Your task to perform on an android device: toggle translation in the chrome app Image 0: 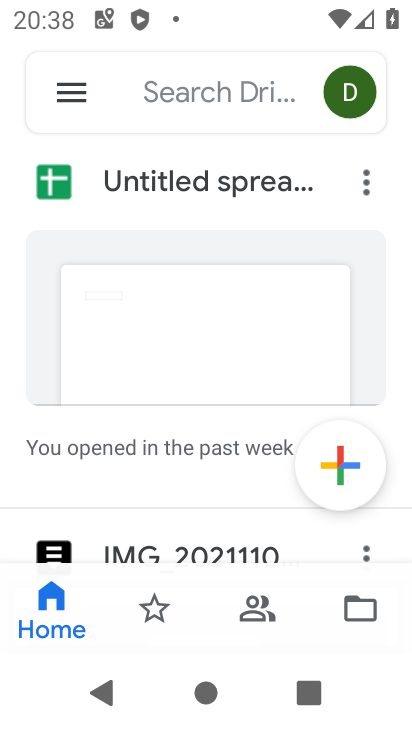
Step 0: drag from (178, 477) to (236, 74)
Your task to perform on an android device: toggle translation in the chrome app Image 1: 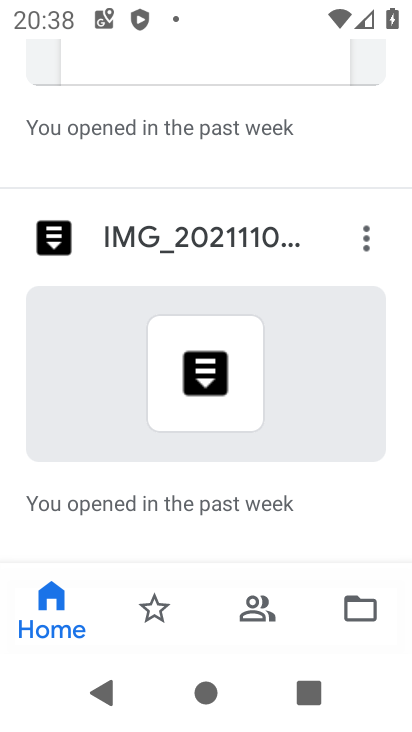
Step 1: press home button
Your task to perform on an android device: toggle translation in the chrome app Image 2: 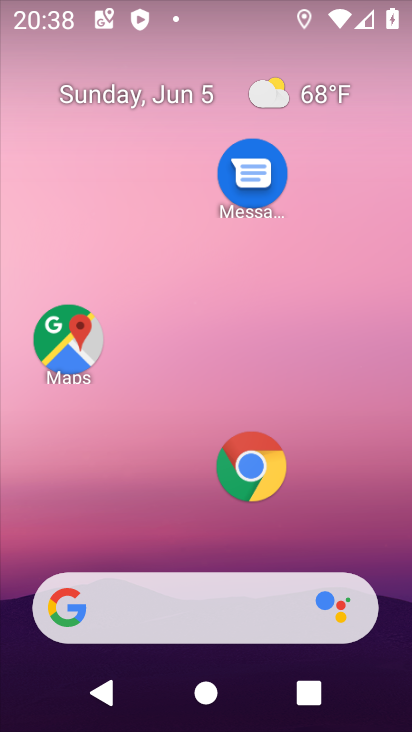
Step 2: drag from (210, 528) to (218, 75)
Your task to perform on an android device: toggle translation in the chrome app Image 3: 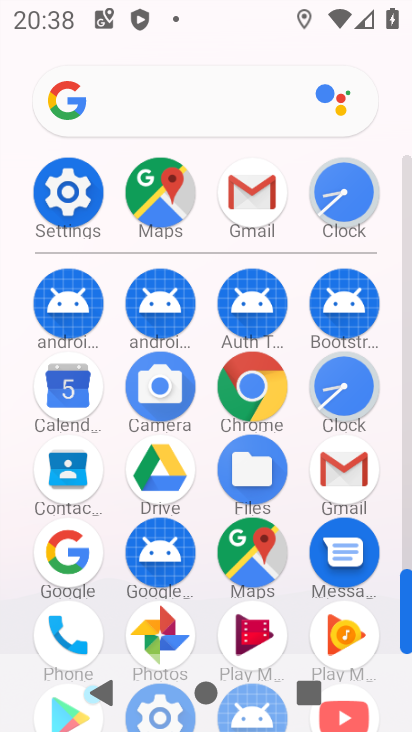
Step 3: click (243, 380)
Your task to perform on an android device: toggle translation in the chrome app Image 4: 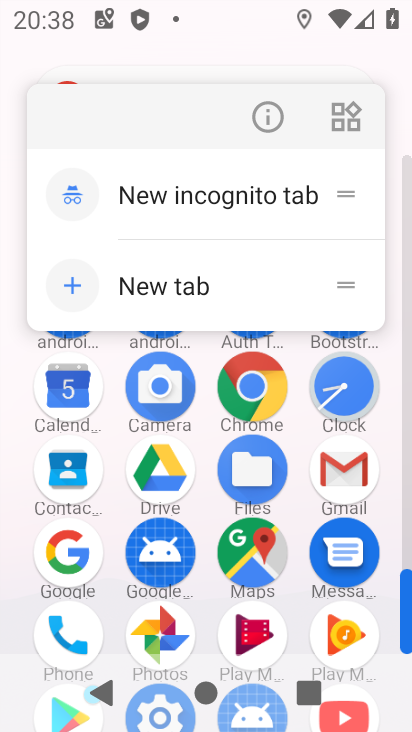
Step 4: click (261, 116)
Your task to perform on an android device: toggle translation in the chrome app Image 5: 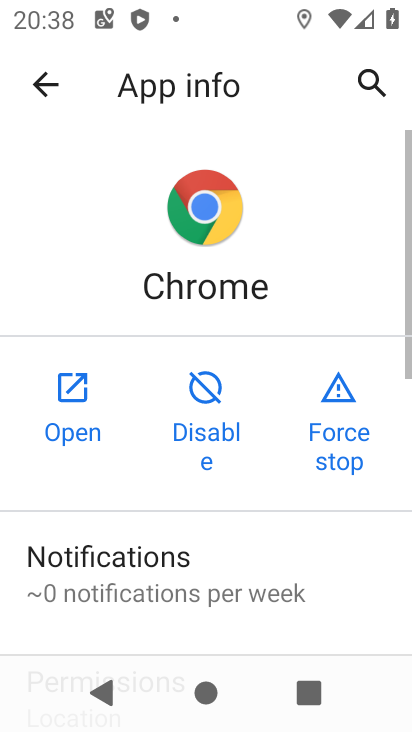
Step 5: drag from (208, 543) to (222, 254)
Your task to perform on an android device: toggle translation in the chrome app Image 6: 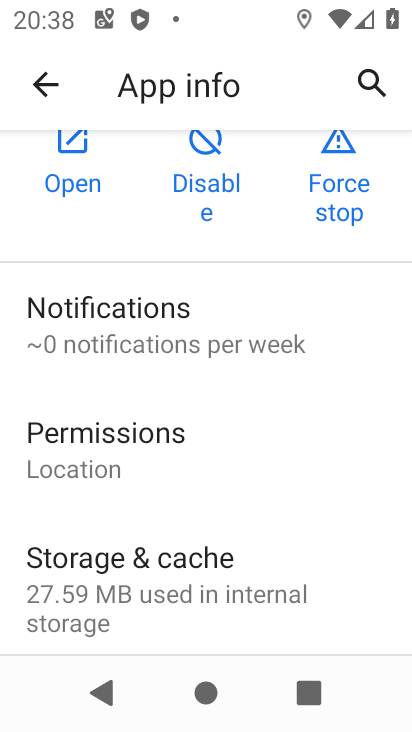
Step 6: drag from (226, 223) to (230, 666)
Your task to perform on an android device: toggle translation in the chrome app Image 7: 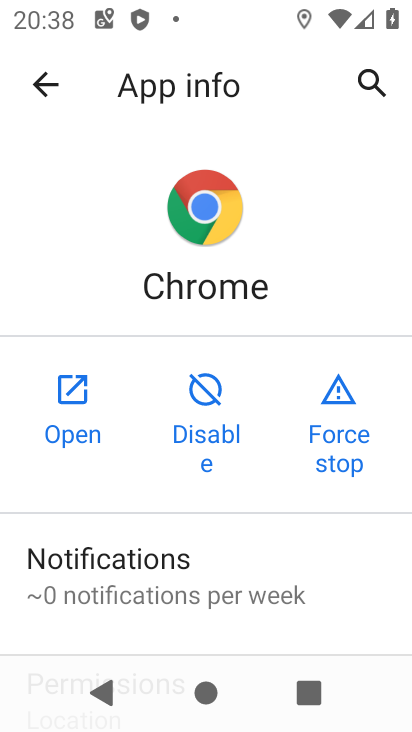
Step 7: click (85, 387)
Your task to perform on an android device: toggle translation in the chrome app Image 8: 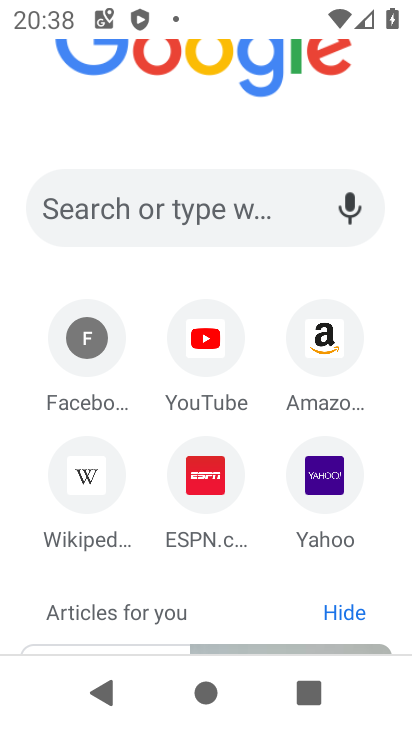
Step 8: drag from (355, 185) to (326, 526)
Your task to perform on an android device: toggle translation in the chrome app Image 9: 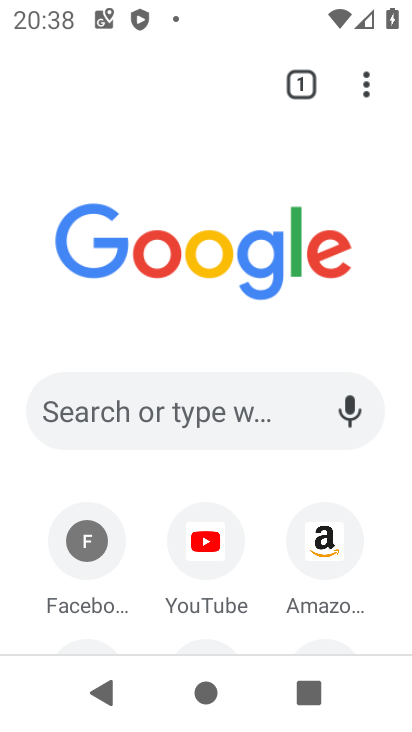
Step 9: click (361, 92)
Your task to perform on an android device: toggle translation in the chrome app Image 10: 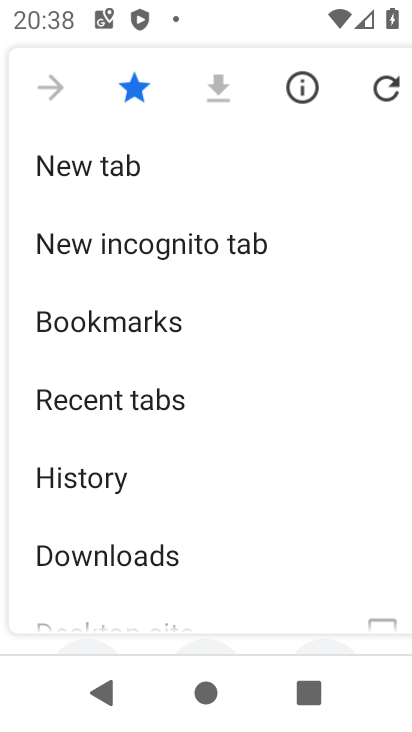
Step 10: drag from (105, 554) to (161, 77)
Your task to perform on an android device: toggle translation in the chrome app Image 11: 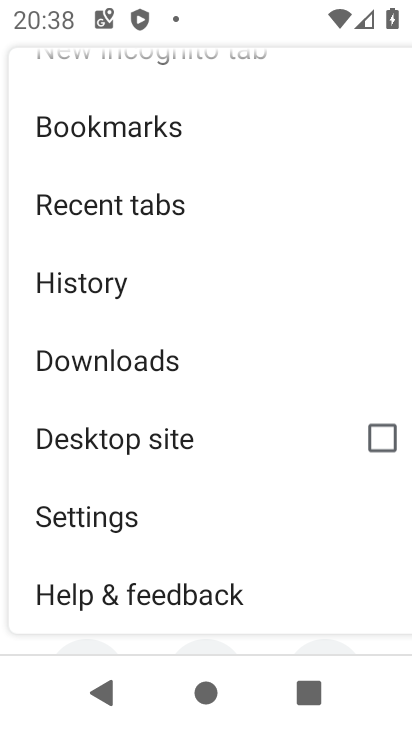
Step 11: click (144, 496)
Your task to perform on an android device: toggle translation in the chrome app Image 12: 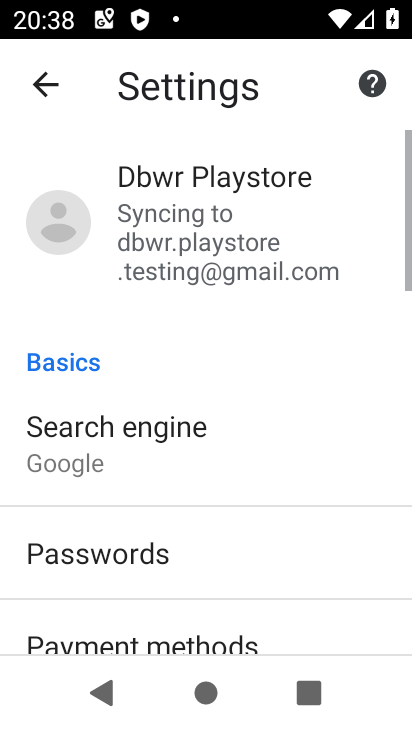
Step 12: drag from (222, 463) to (235, 242)
Your task to perform on an android device: toggle translation in the chrome app Image 13: 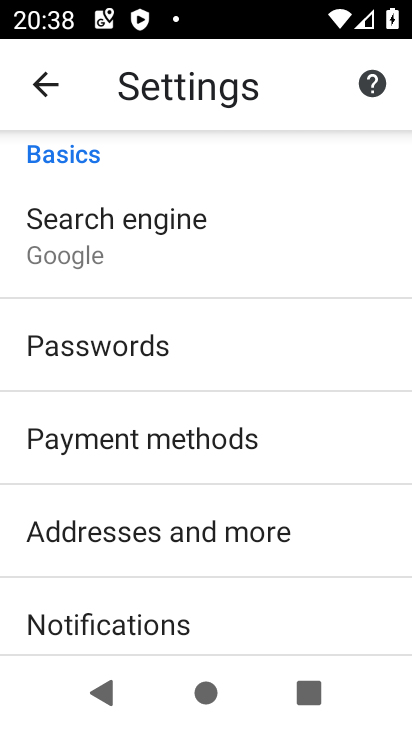
Step 13: drag from (238, 525) to (269, 299)
Your task to perform on an android device: toggle translation in the chrome app Image 14: 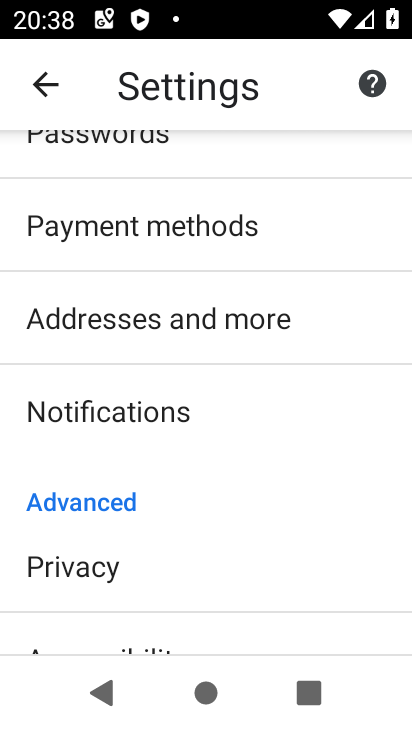
Step 14: drag from (170, 594) to (276, 218)
Your task to perform on an android device: toggle translation in the chrome app Image 15: 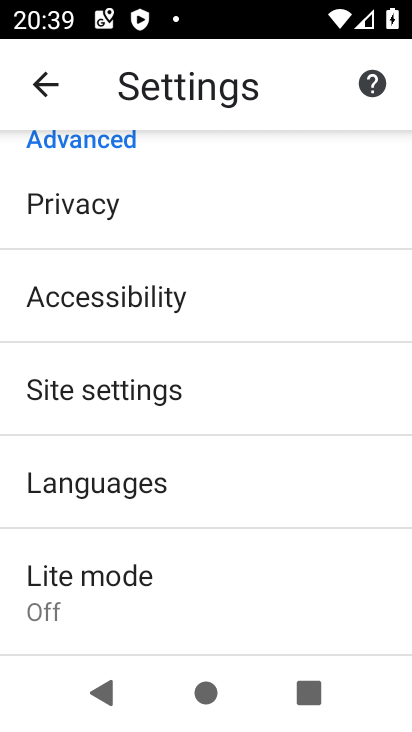
Step 15: drag from (188, 415) to (277, 55)
Your task to perform on an android device: toggle translation in the chrome app Image 16: 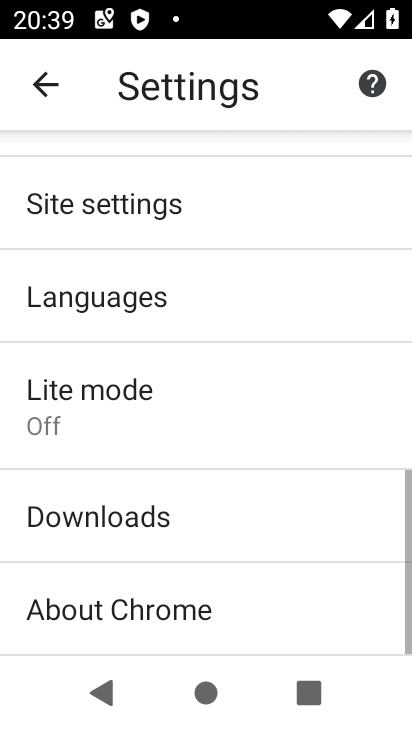
Step 16: drag from (195, 212) to (203, 410)
Your task to perform on an android device: toggle translation in the chrome app Image 17: 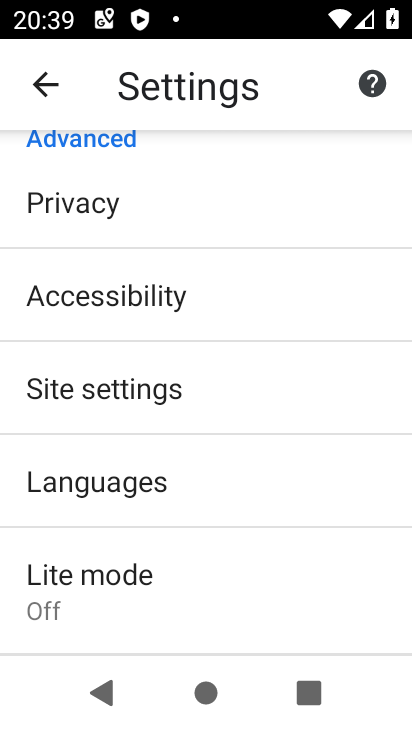
Step 17: click (147, 409)
Your task to perform on an android device: toggle translation in the chrome app Image 18: 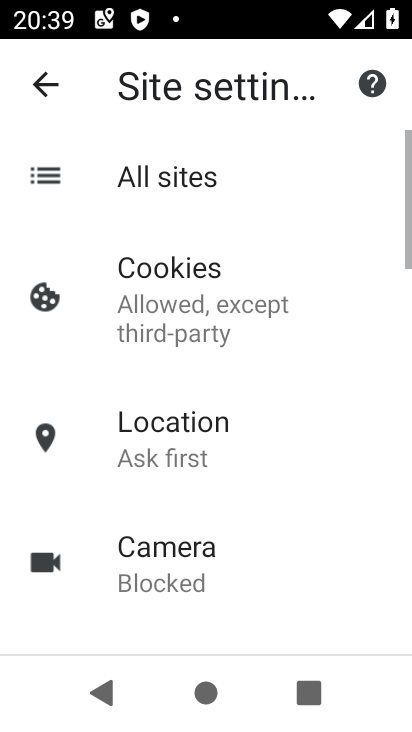
Step 18: drag from (216, 459) to (252, 255)
Your task to perform on an android device: toggle translation in the chrome app Image 19: 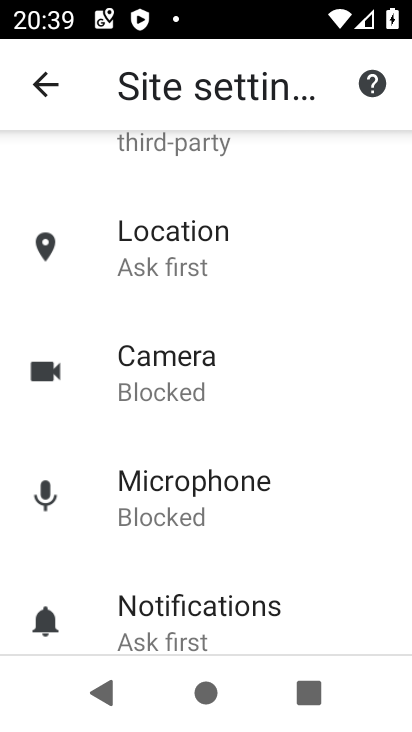
Step 19: drag from (217, 498) to (277, 244)
Your task to perform on an android device: toggle translation in the chrome app Image 20: 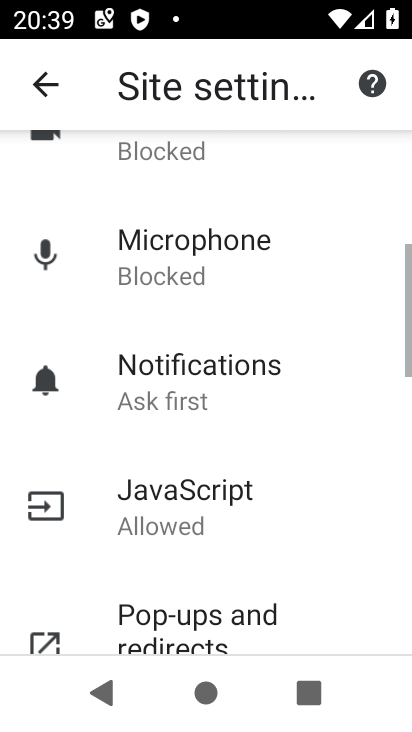
Step 20: drag from (225, 534) to (298, 252)
Your task to perform on an android device: toggle translation in the chrome app Image 21: 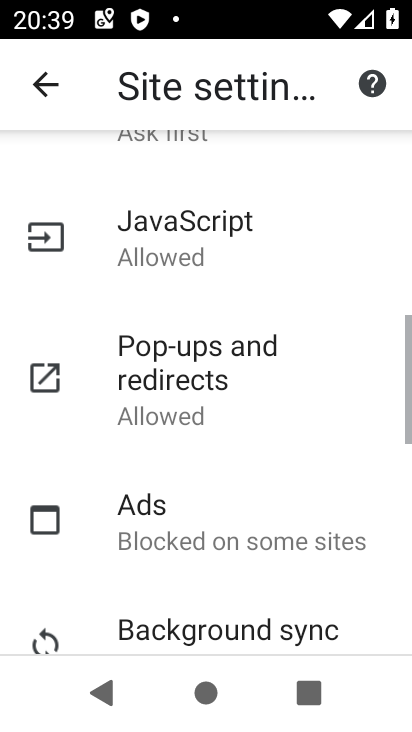
Step 21: drag from (219, 534) to (364, 98)
Your task to perform on an android device: toggle translation in the chrome app Image 22: 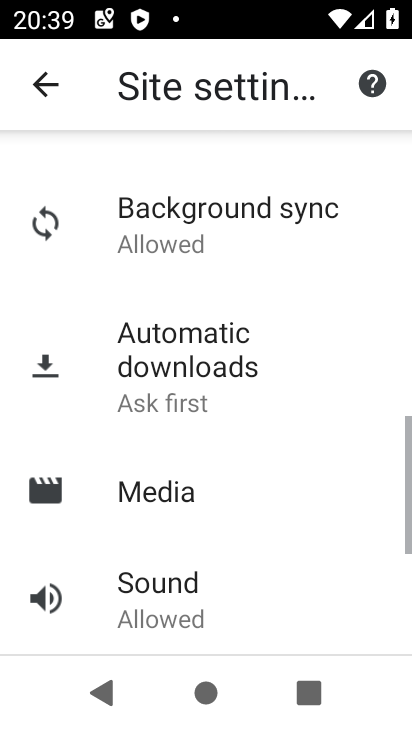
Step 22: drag from (230, 373) to (316, 681)
Your task to perform on an android device: toggle translation in the chrome app Image 23: 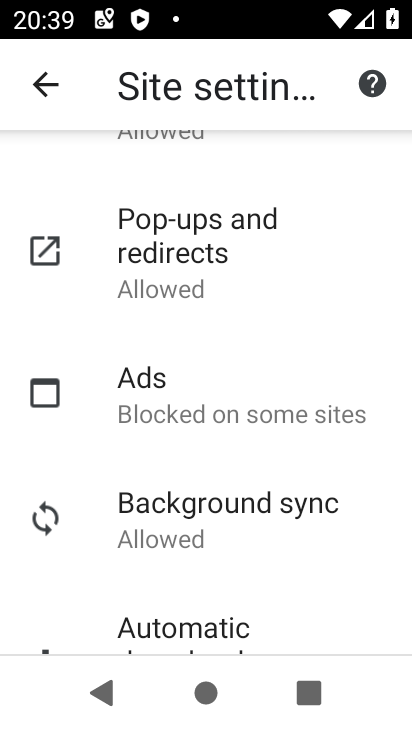
Step 23: drag from (273, 489) to (336, 234)
Your task to perform on an android device: toggle translation in the chrome app Image 24: 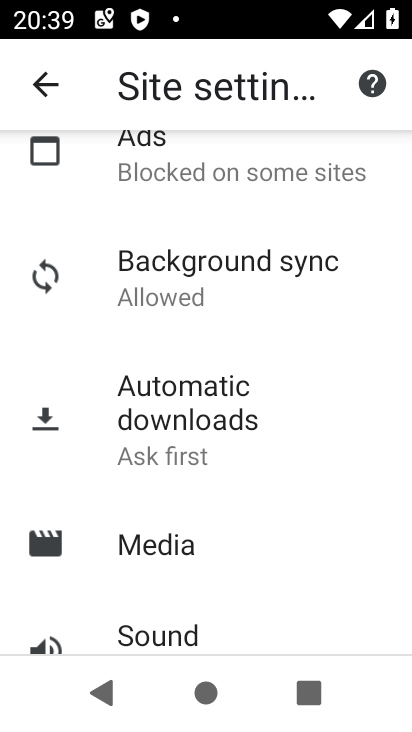
Step 24: drag from (193, 541) to (273, 237)
Your task to perform on an android device: toggle translation in the chrome app Image 25: 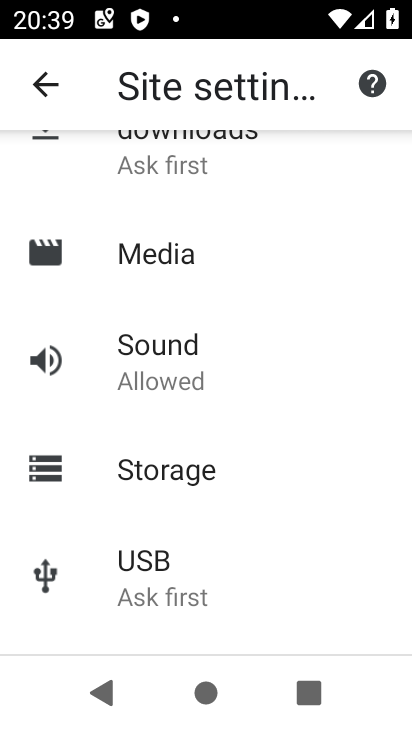
Step 25: drag from (273, 302) to (316, 706)
Your task to perform on an android device: toggle translation in the chrome app Image 26: 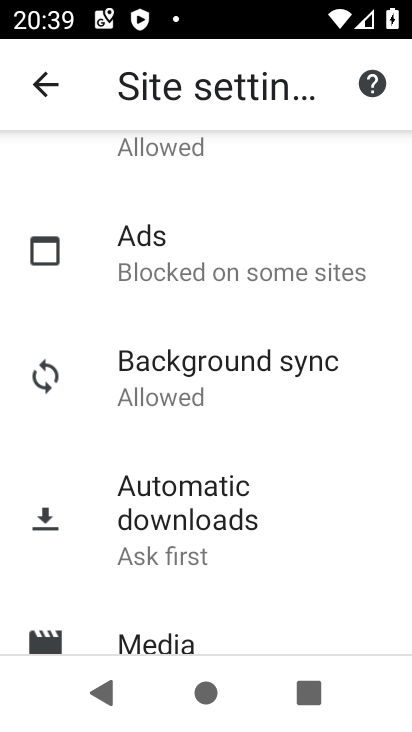
Step 26: drag from (239, 245) to (290, 691)
Your task to perform on an android device: toggle translation in the chrome app Image 27: 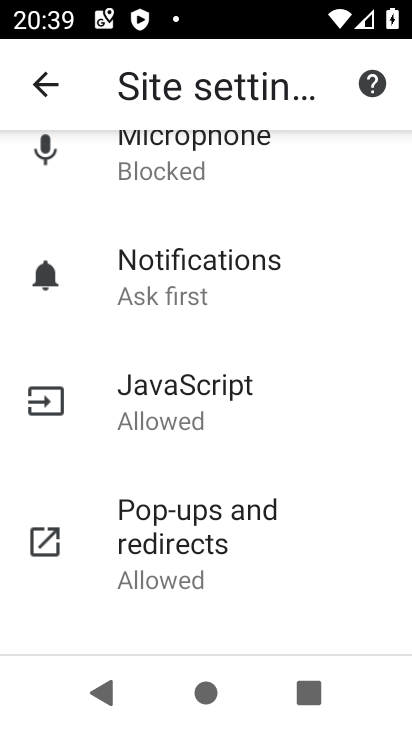
Step 27: click (29, 72)
Your task to perform on an android device: toggle translation in the chrome app Image 28: 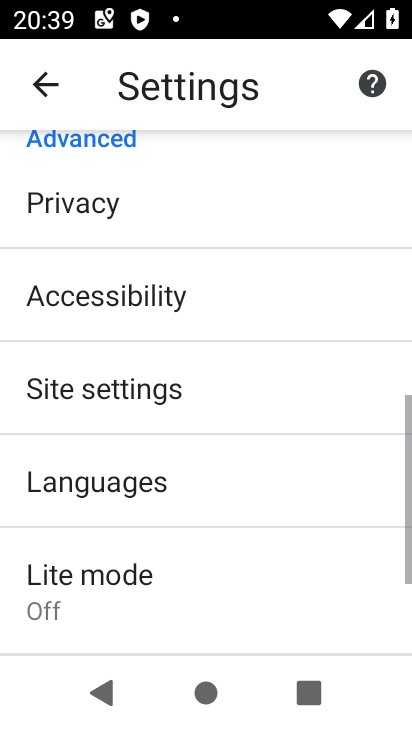
Step 28: click (133, 498)
Your task to perform on an android device: toggle translation in the chrome app Image 29: 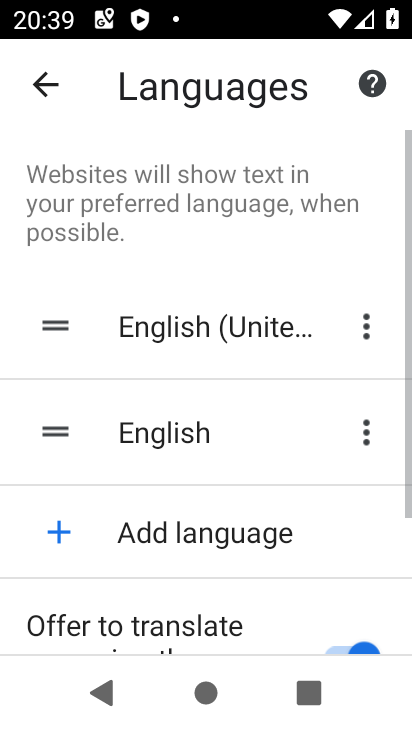
Step 29: drag from (186, 505) to (240, 126)
Your task to perform on an android device: toggle translation in the chrome app Image 30: 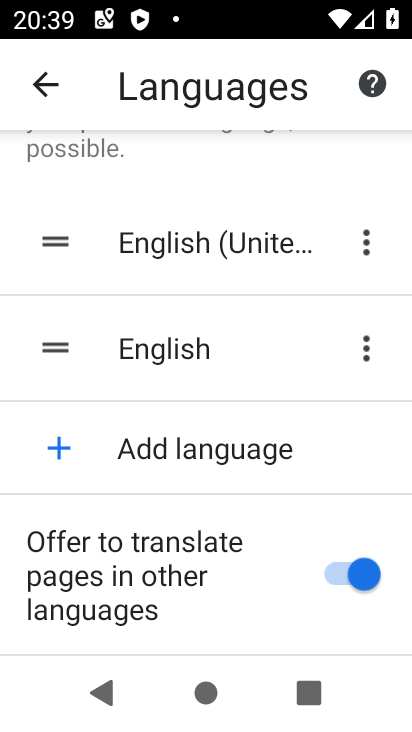
Step 30: click (338, 562)
Your task to perform on an android device: toggle translation in the chrome app Image 31: 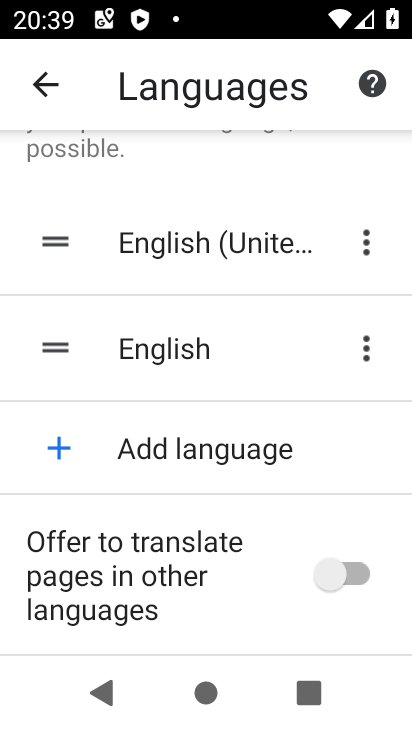
Step 31: task complete